Your task to perform on an android device: turn on improve location accuracy Image 0: 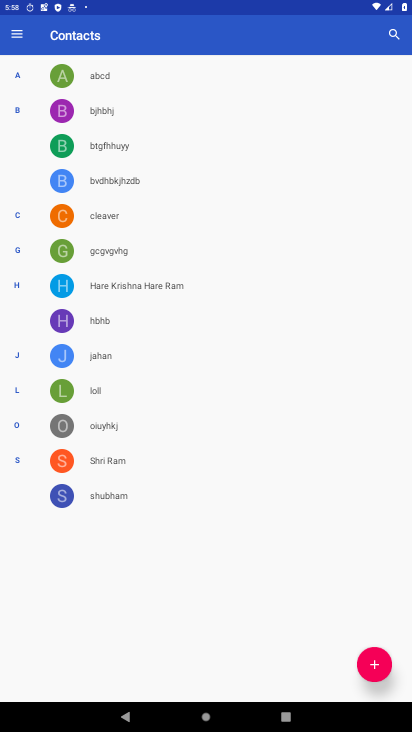
Step 0: press home button
Your task to perform on an android device: turn on improve location accuracy Image 1: 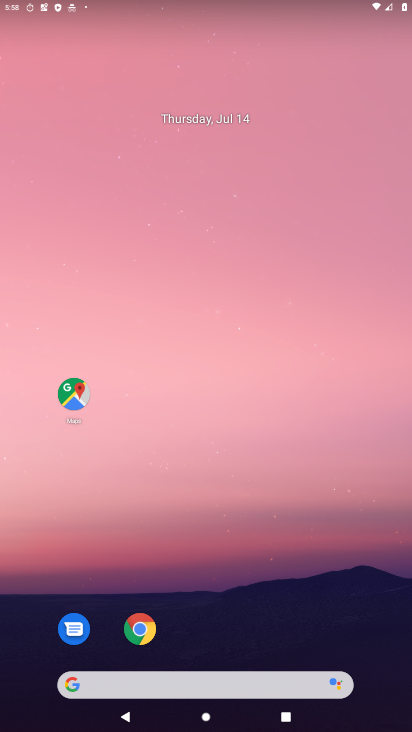
Step 1: drag from (250, 529) to (344, 17)
Your task to perform on an android device: turn on improve location accuracy Image 2: 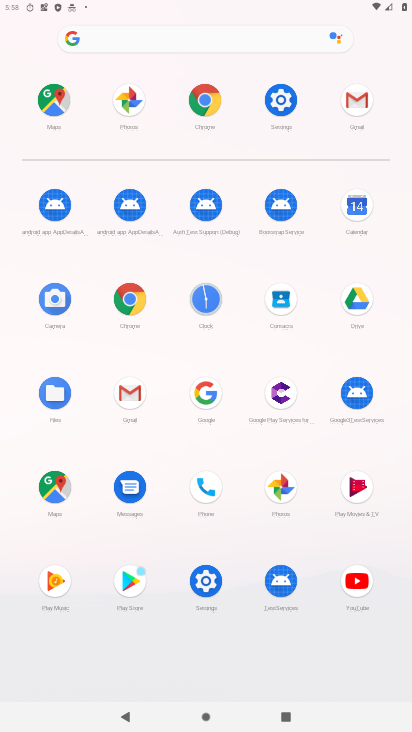
Step 2: click (275, 100)
Your task to perform on an android device: turn on improve location accuracy Image 3: 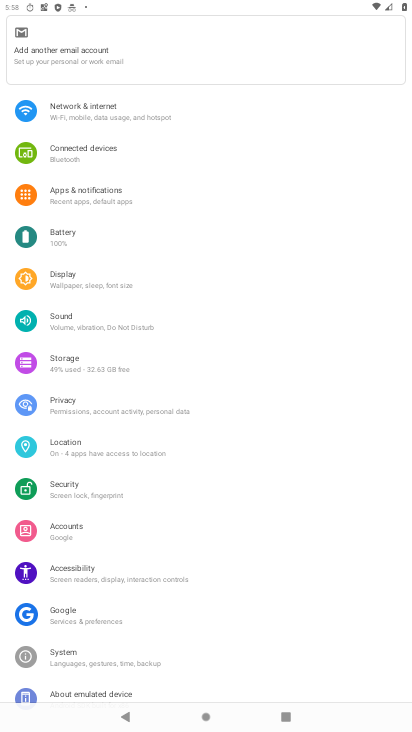
Step 3: click (97, 438)
Your task to perform on an android device: turn on improve location accuracy Image 4: 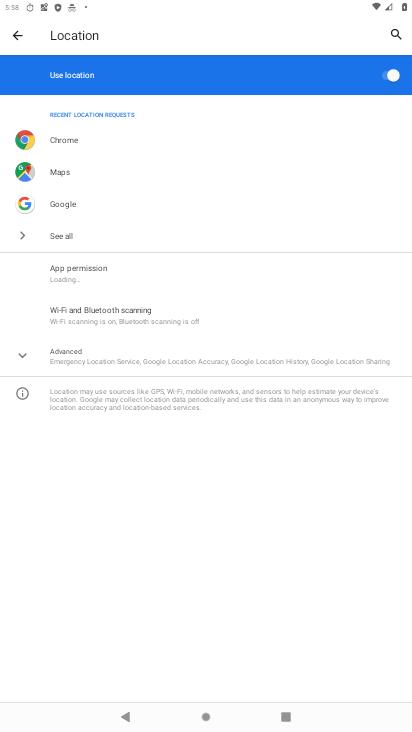
Step 4: click (146, 361)
Your task to perform on an android device: turn on improve location accuracy Image 5: 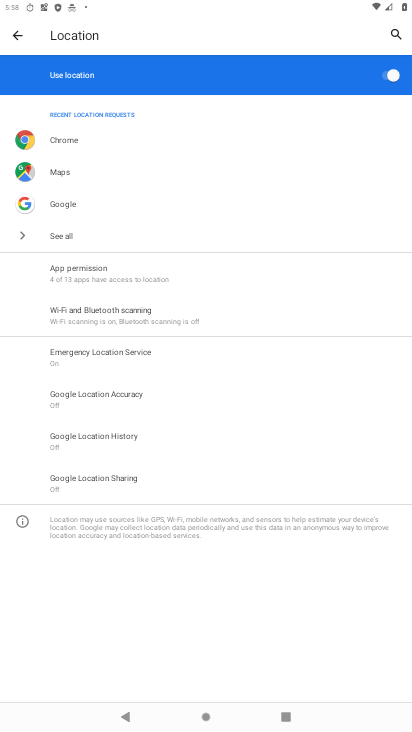
Step 5: click (123, 397)
Your task to perform on an android device: turn on improve location accuracy Image 6: 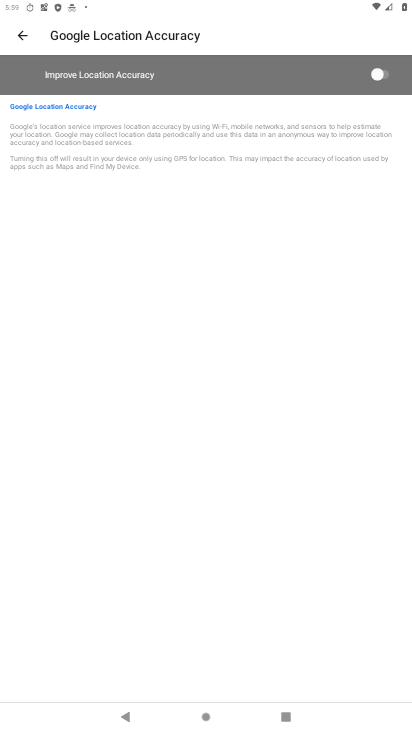
Step 6: click (376, 72)
Your task to perform on an android device: turn on improve location accuracy Image 7: 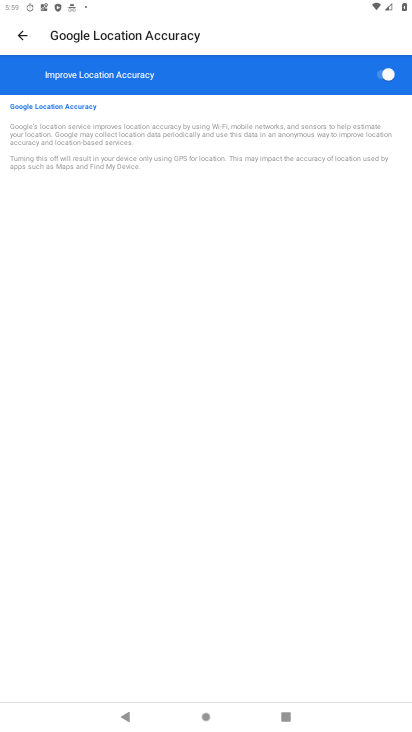
Step 7: task complete